Your task to perform on an android device: Open settings Image 0: 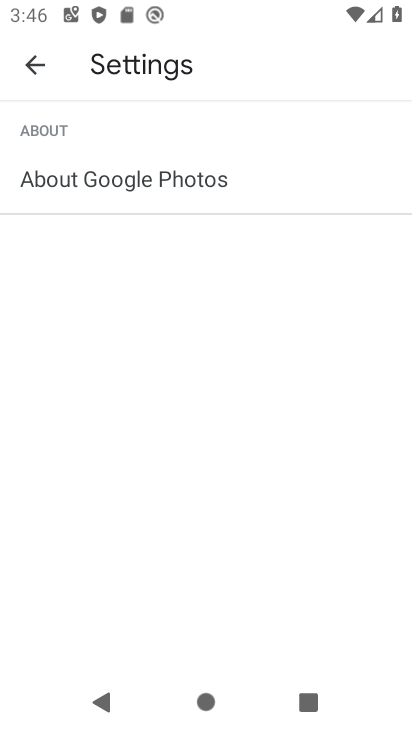
Step 0: press home button
Your task to perform on an android device: Open settings Image 1: 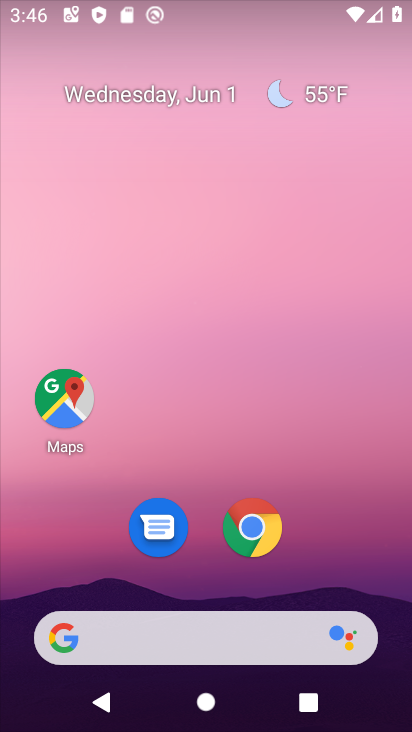
Step 1: drag from (371, 586) to (297, 89)
Your task to perform on an android device: Open settings Image 2: 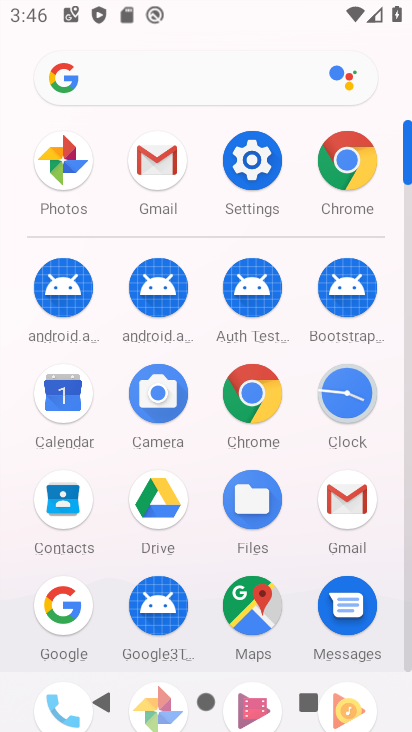
Step 2: click (267, 144)
Your task to perform on an android device: Open settings Image 3: 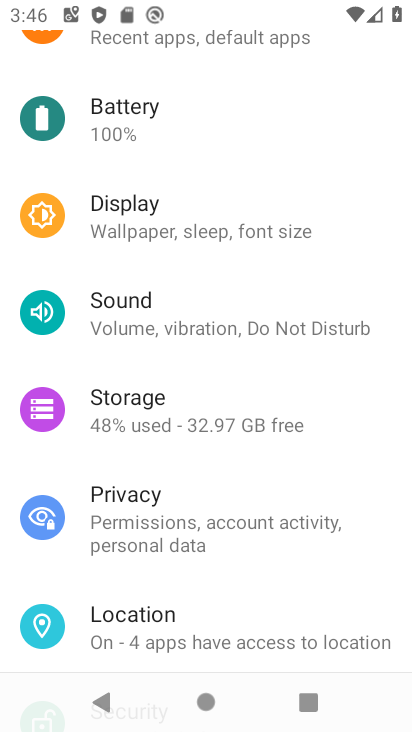
Step 3: task complete